Your task to perform on an android device: Open calendar and show me the second week of next month Image 0: 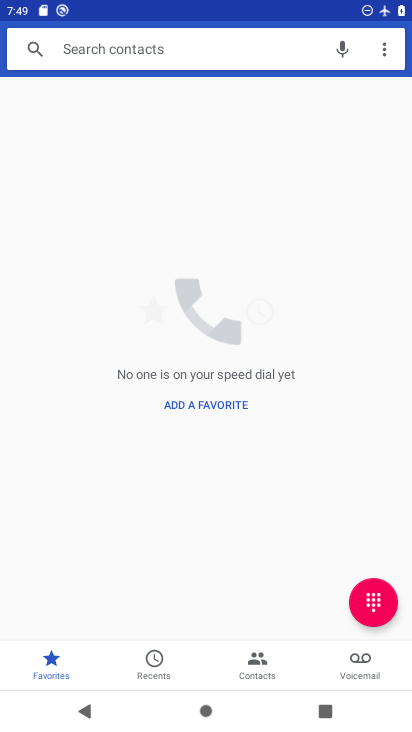
Step 0: press home button
Your task to perform on an android device: Open calendar and show me the second week of next month Image 1: 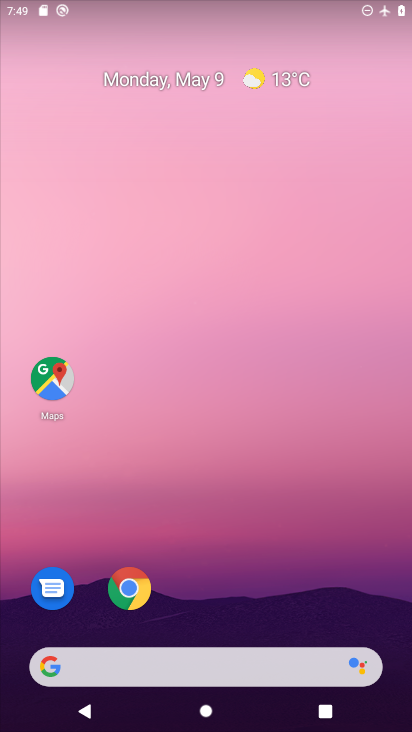
Step 1: drag from (289, 596) to (267, 6)
Your task to perform on an android device: Open calendar and show me the second week of next month Image 2: 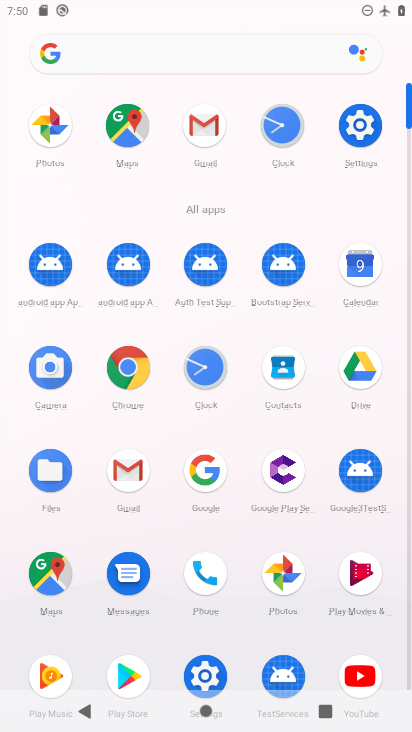
Step 2: click (365, 290)
Your task to perform on an android device: Open calendar and show me the second week of next month Image 3: 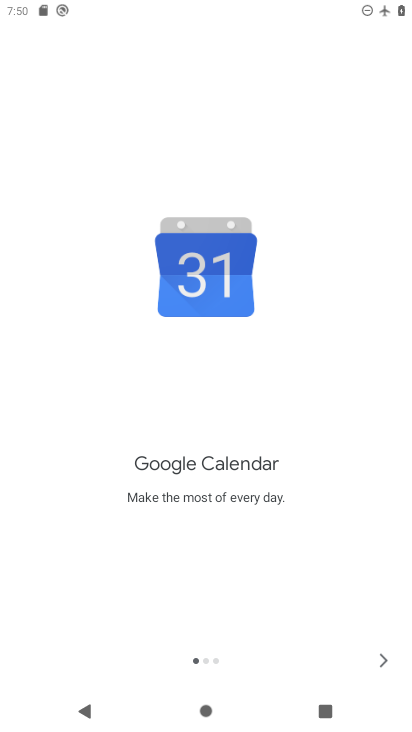
Step 3: click (394, 678)
Your task to perform on an android device: Open calendar and show me the second week of next month Image 4: 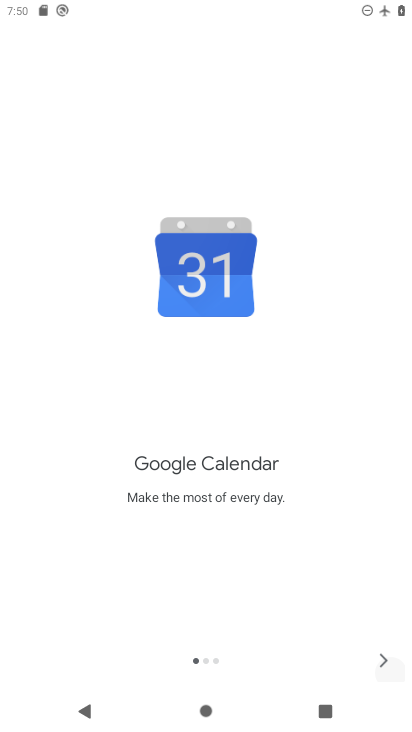
Step 4: click (394, 678)
Your task to perform on an android device: Open calendar and show me the second week of next month Image 5: 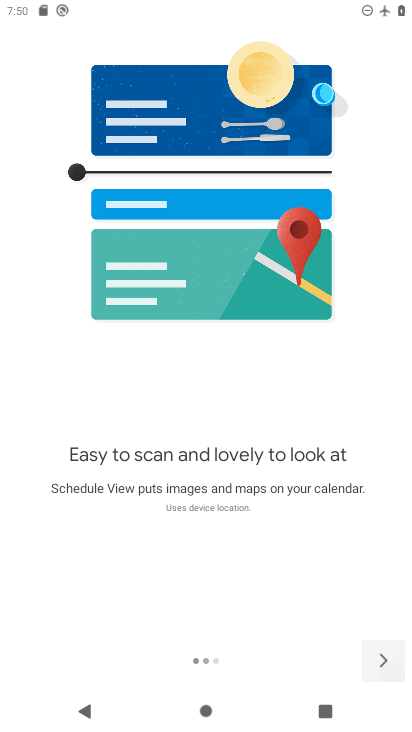
Step 5: click (394, 678)
Your task to perform on an android device: Open calendar and show me the second week of next month Image 6: 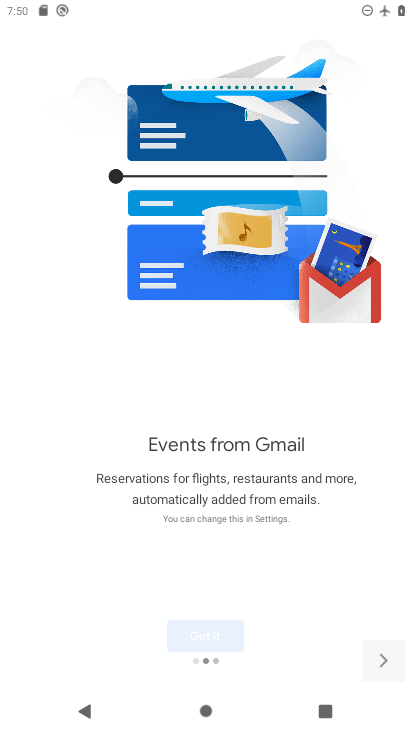
Step 6: click (394, 678)
Your task to perform on an android device: Open calendar and show me the second week of next month Image 7: 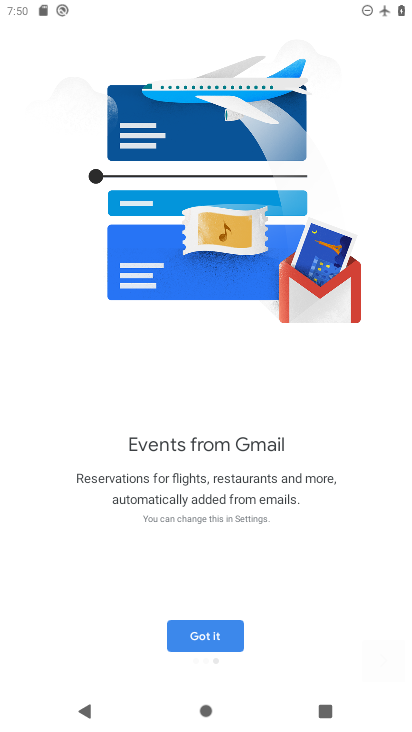
Step 7: click (394, 678)
Your task to perform on an android device: Open calendar and show me the second week of next month Image 8: 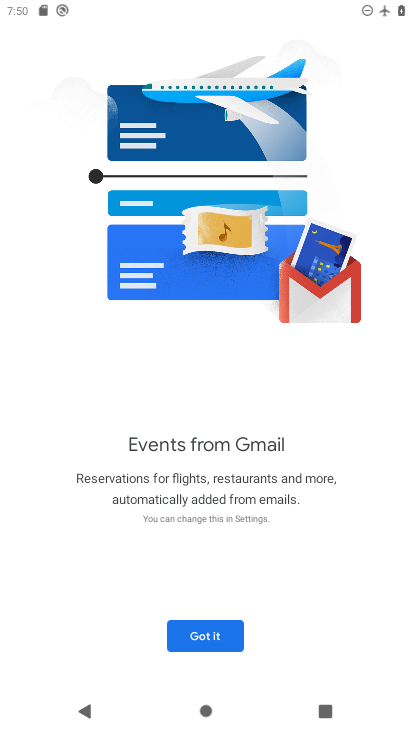
Step 8: click (215, 631)
Your task to perform on an android device: Open calendar and show me the second week of next month Image 9: 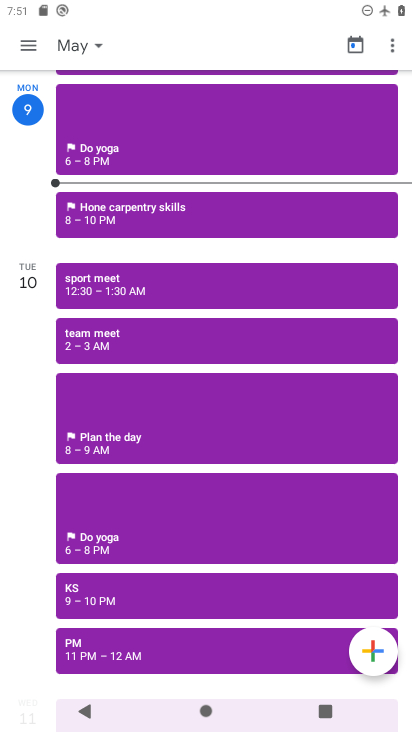
Step 9: click (84, 43)
Your task to perform on an android device: Open calendar and show me the second week of next month Image 10: 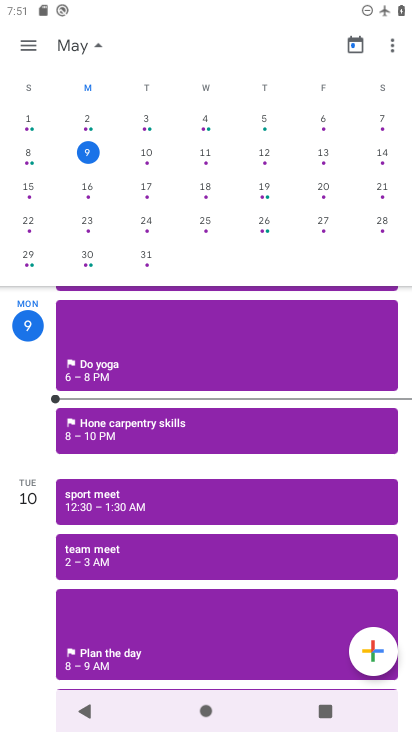
Step 10: drag from (371, 233) to (0, 213)
Your task to perform on an android device: Open calendar and show me the second week of next month Image 11: 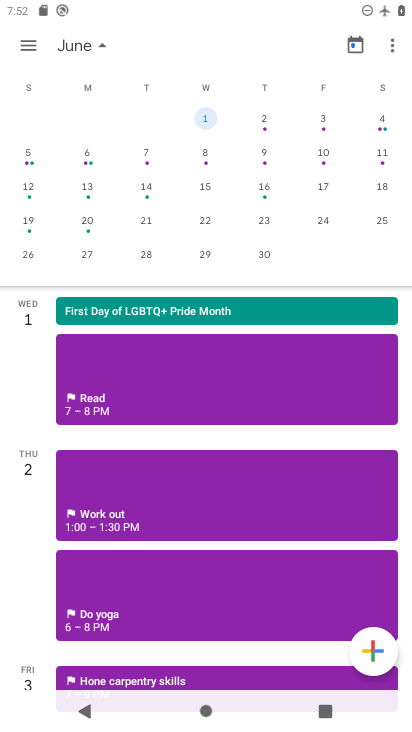
Step 11: click (207, 178)
Your task to perform on an android device: Open calendar and show me the second week of next month Image 12: 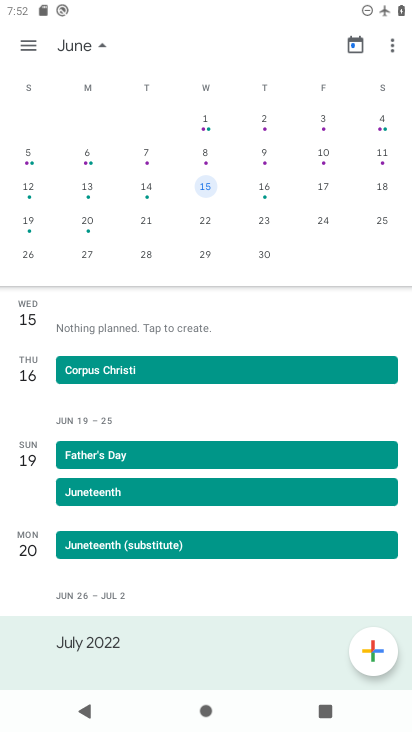
Step 12: task complete